Your task to perform on an android device: Go to Maps Image 0: 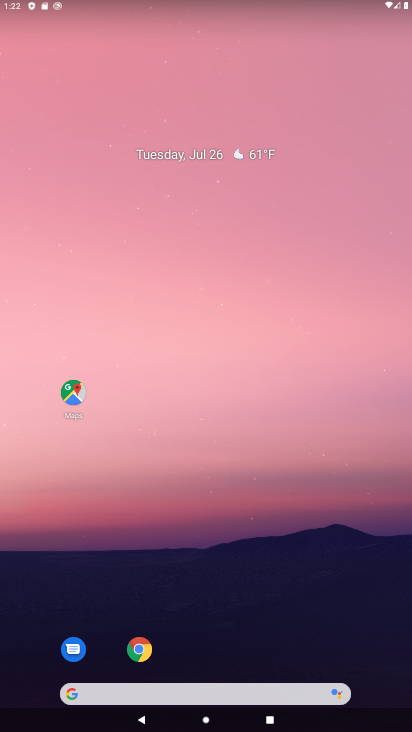
Step 0: click (72, 412)
Your task to perform on an android device: Go to Maps Image 1: 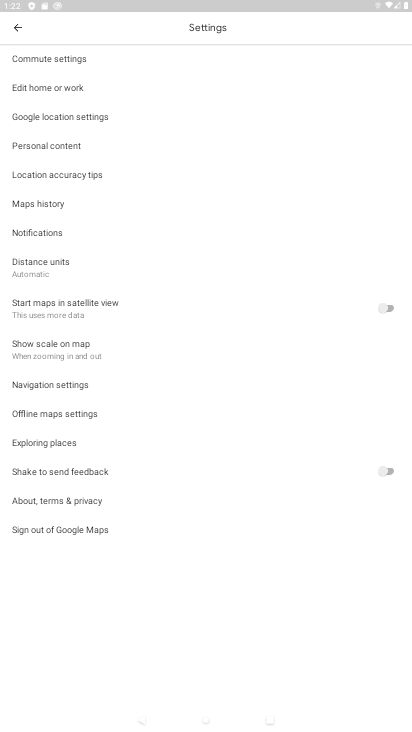
Step 1: task complete